Your task to perform on an android device: open a new tab in the chrome app Image 0: 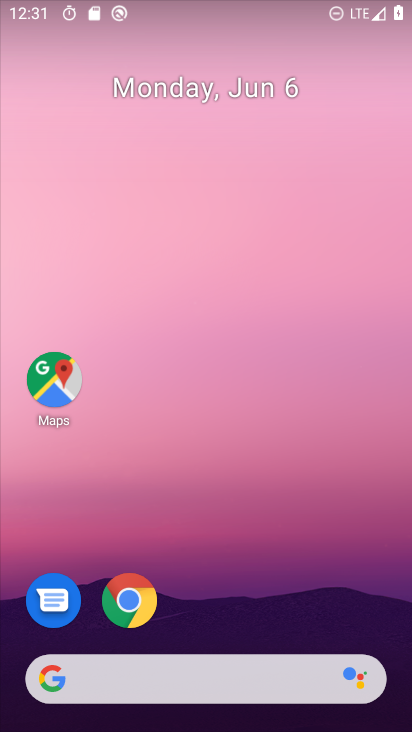
Step 0: click (116, 620)
Your task to perform on an android device: open a new tab in the chrome app Image 1: 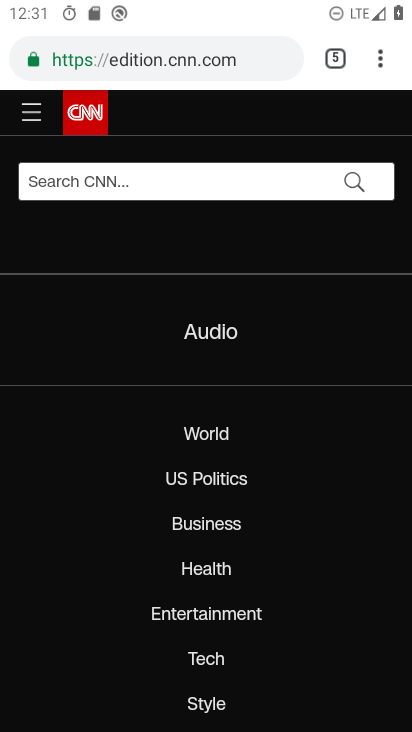
Step 1: click (332, 50)
Your task to perform on an android device: open a new tab in the chrome app Image 2: 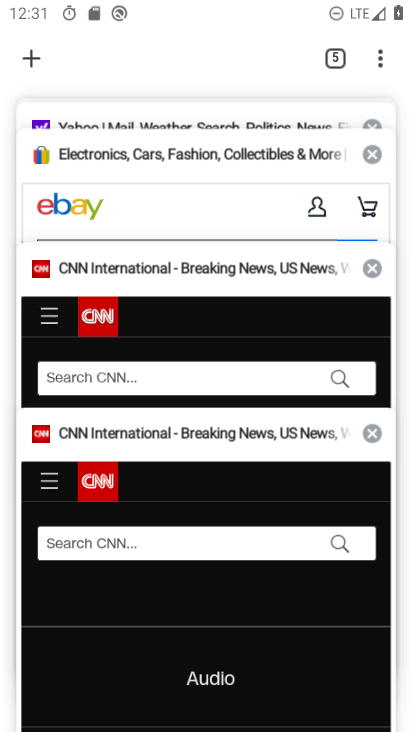
Step 2: click (24, 64)
Your task to perform on an android device: open a new tab in the chrome app Image 3: 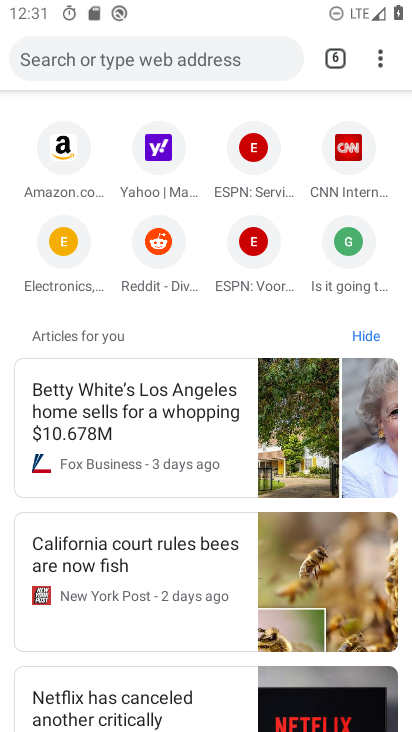
Step 3: task complete